Your task to perform on an android device: Search for sushi restaurants on Maps Image 0: 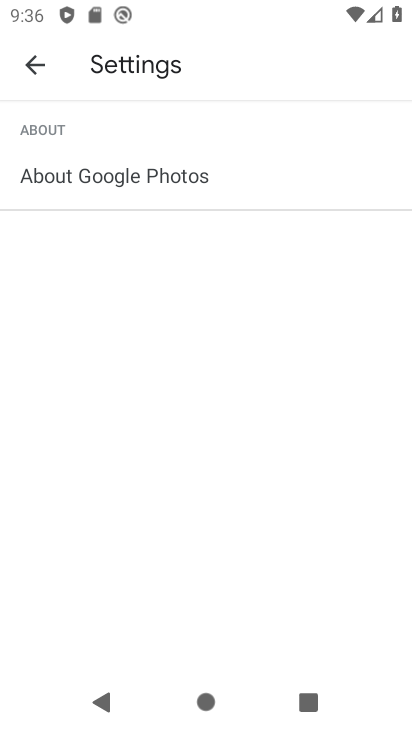
Step 0: press home button
Your task to perform on an android device: Search for sushi restaurants on Maps Image 1: 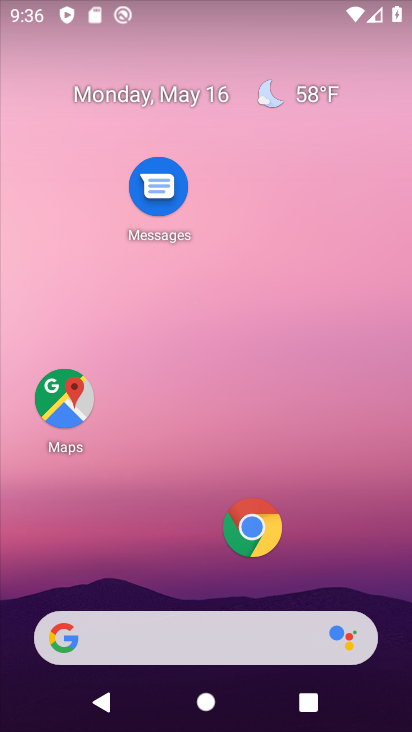
Step 1: click (68, 405)
Your task to perform on an android device: Search for sushi restaurants on Maps Image 2: 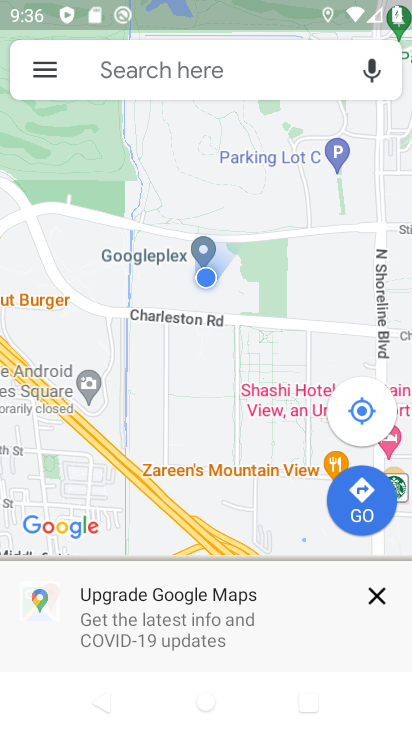
Step 2: click (160, 74)
Your task to perform on an android device: Search for sushi restaurants on Maps Image 3: 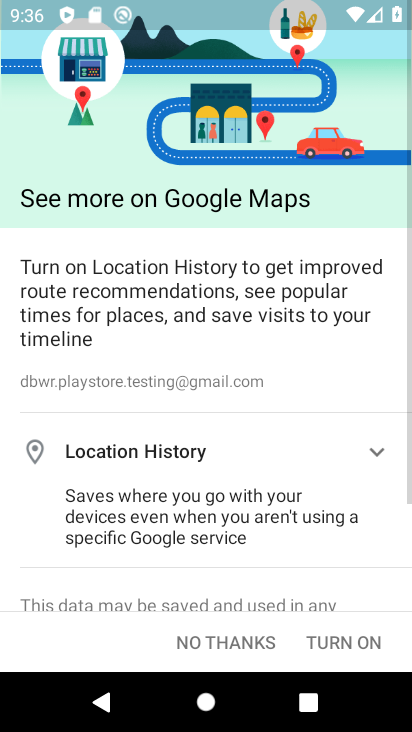
Step 3: click (224, 644)
Your task to perform on an android device: Search for sushi restaurants on Maps Image 4: 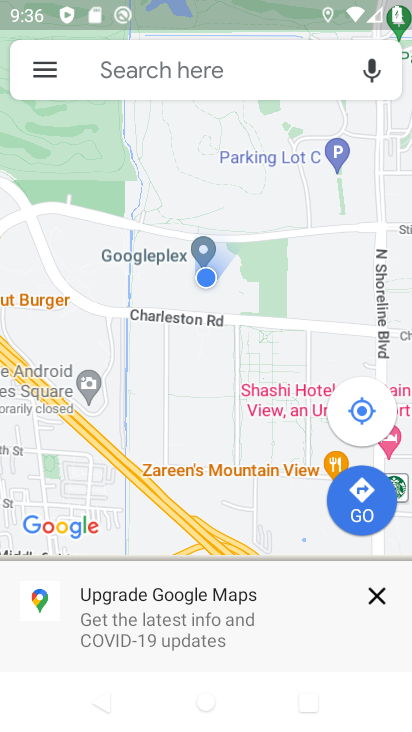
Step 4: click (168, 71)
Your task to perform on an android device: Search for sushi restaurants on Maps Image 5: 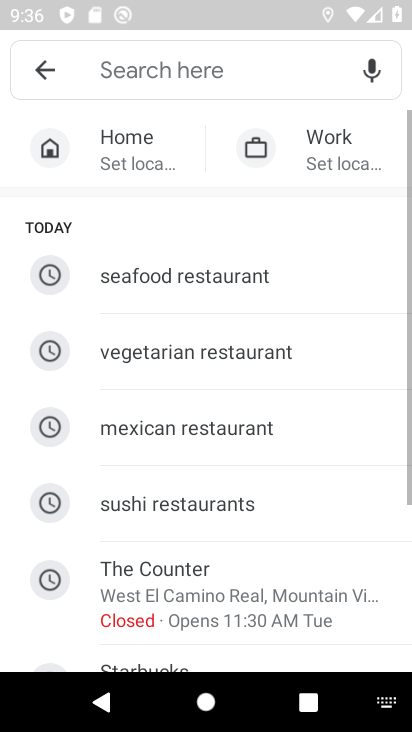
Step 5: click (182, 519)
Your task to perform on an android device: Search for sushi restaurants on Maps Image 6: 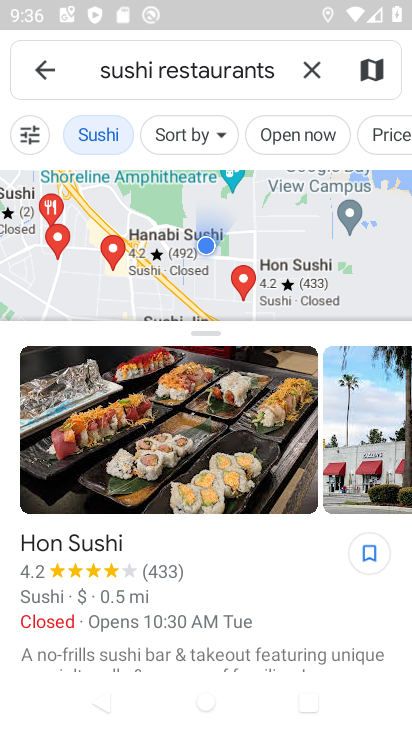
Step 6: task complete